Your task to perform on an android device: turn off location history Image 0: 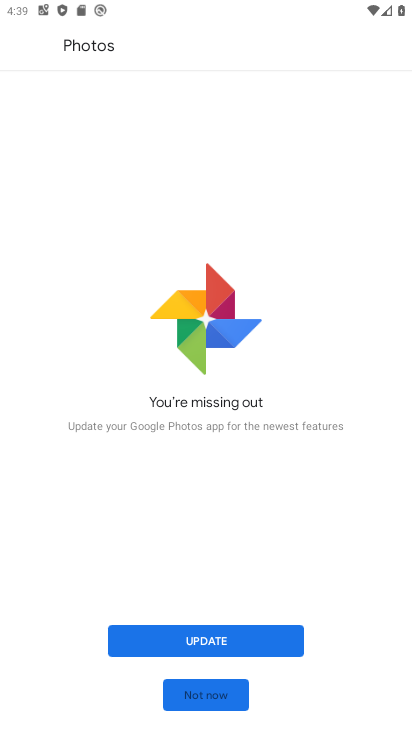
Step 0: press back button
Your task to perform on an android device: turn off location history Image 1: 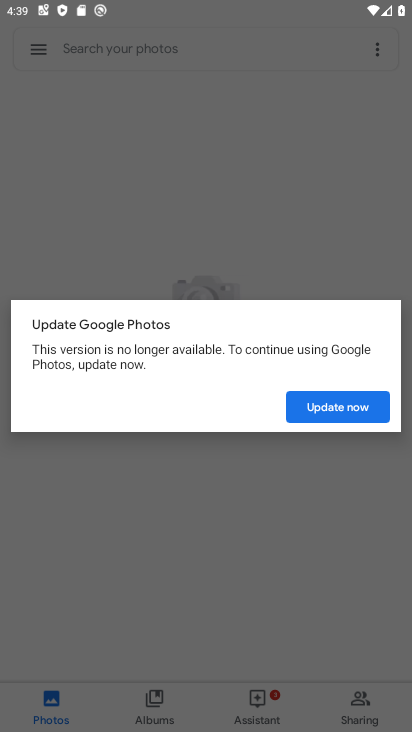
Step 1: press home button
Your task to perform on an android device: turn off location history Image 2: 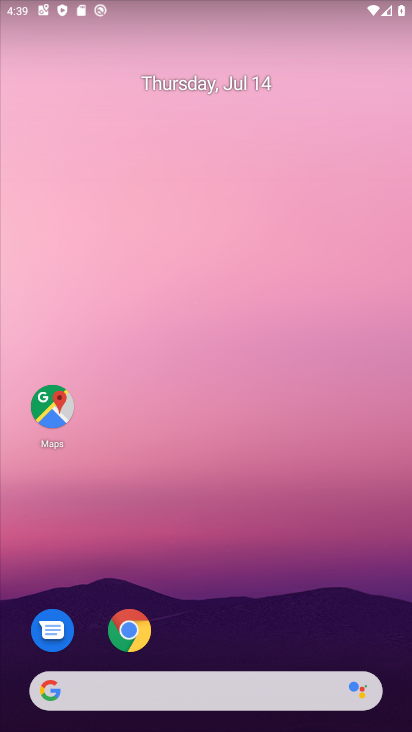
Step 2: drag from (231, 633) to (346, 2)
Your task to perform on an android device: turn off location history Image 3: 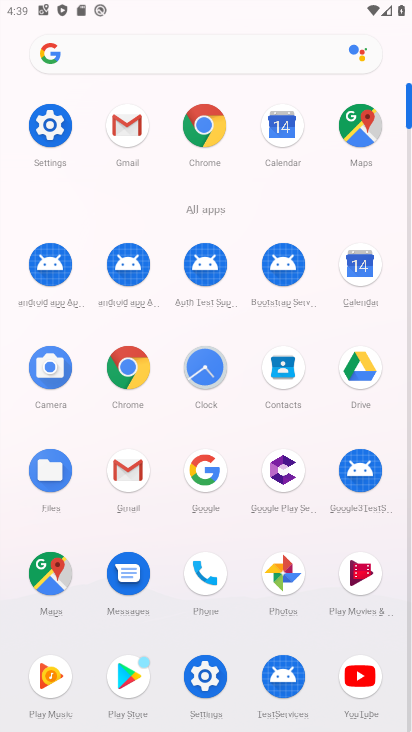
Step 3: click (54, 126)
Your task to perform on an android device: turn off location history Image 4: 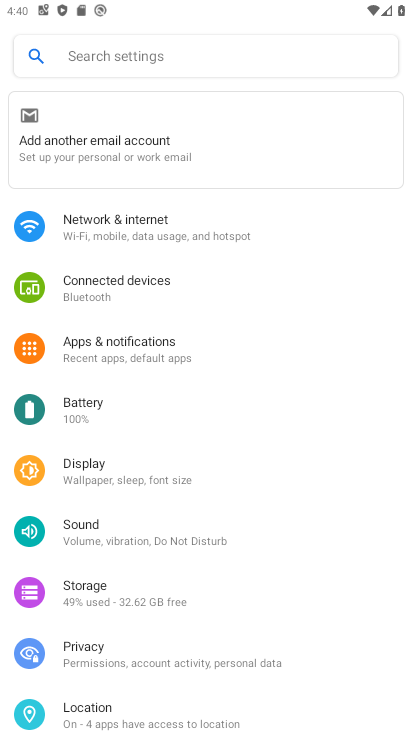
Step 4: click (95, 727)
Your task to perform on an android device: turn off location history Image 5: 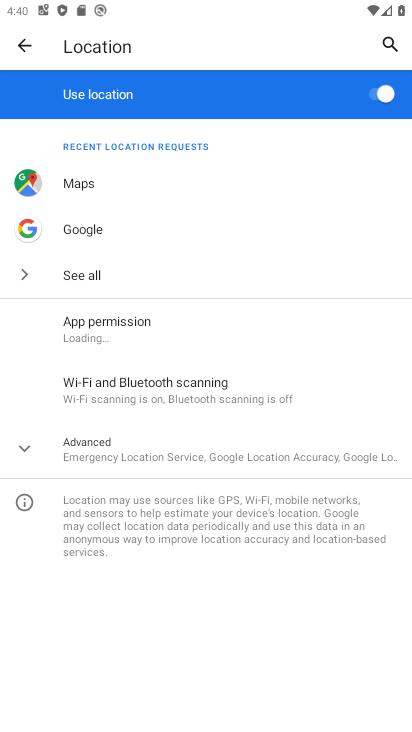
Step 5: click (125, 438)
Your task to perform on an android device: turn off location history Image 6: 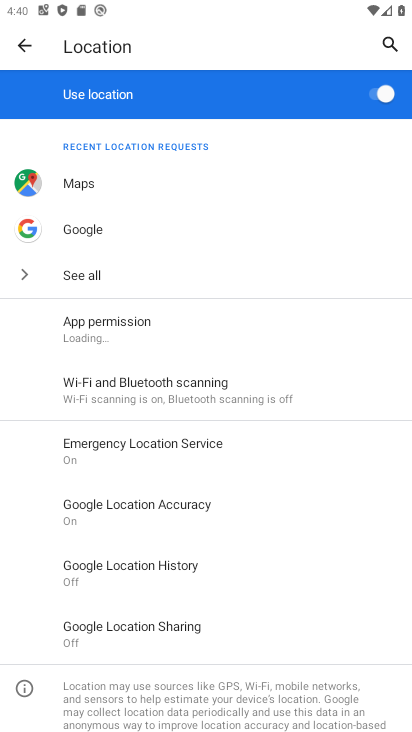
Step 6: click (151, 566)
Your task to perform on an android device: turn off location history Image 7: 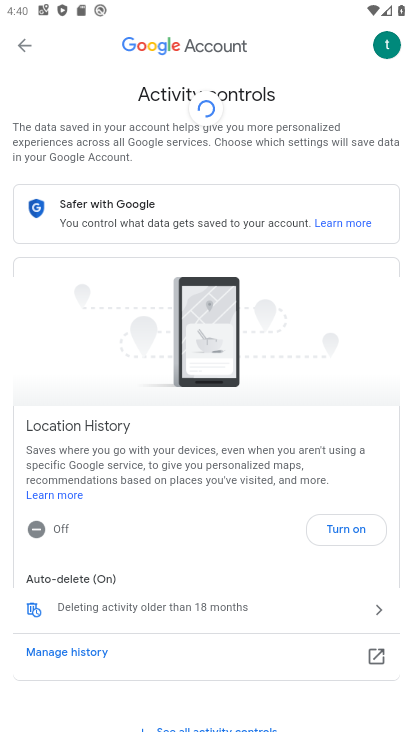
Step 7: task complete